Your task to perform on an android device: turn off priority inbox in the gmail app Image 0: 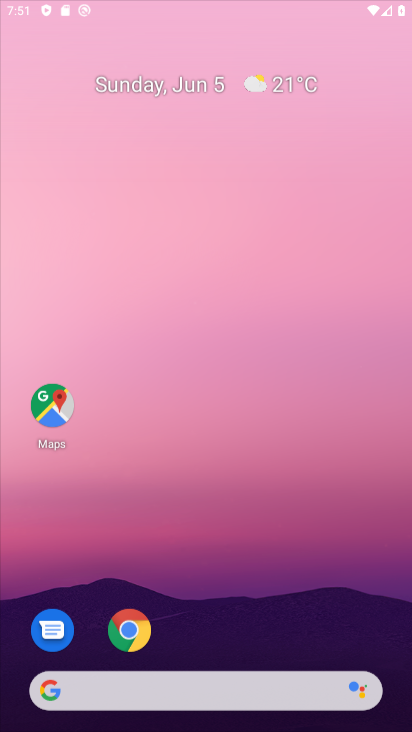
Step 0: click (258, 248)
Your task to perform on an android device: turn off priority inbox in the gmail app Image 1: 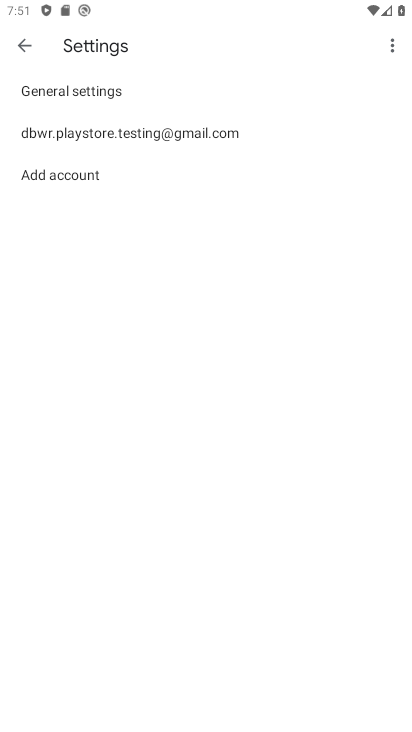
Step 1: press home button
Your task to perform on an android device: turn off priority inbox in the gmail app Image 2: 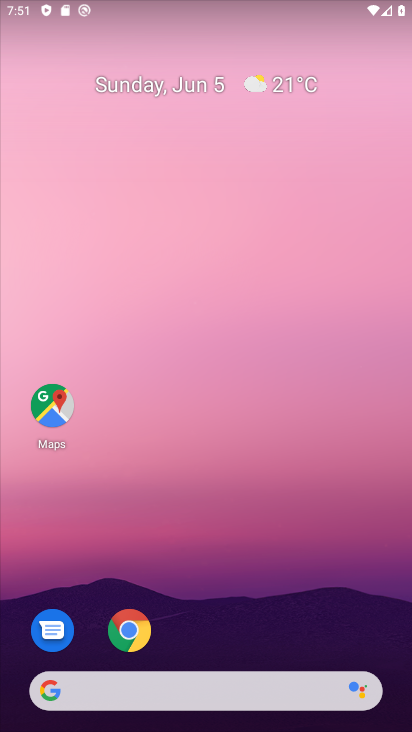
Step 2: drag from (93, 509) to (124, 302)
Your task to perform on an android device: turn off priority inbox in the gmail app Image 3: 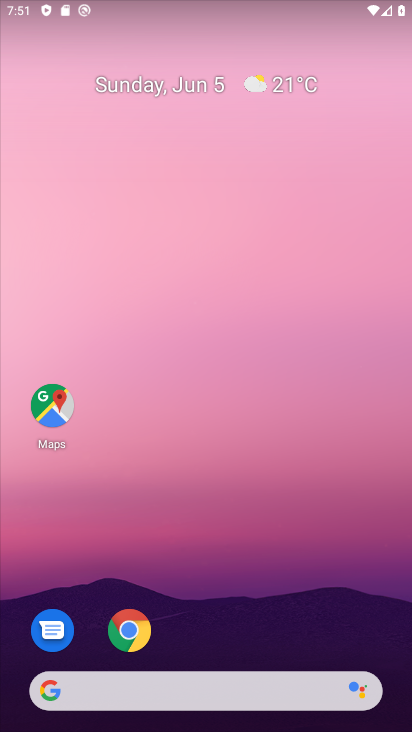
Step 3: drag from (237, 632) to (80, 6)
Your task to perform on an android device: turn off priority inbox in the gmail app Image 4: 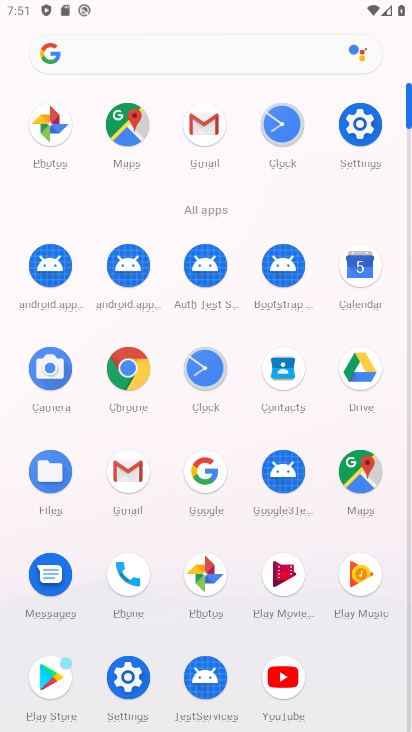
Step 4: click (125, 473)
Your task to perform on an android device: turn off priority inbox in the gmail app Image 5: 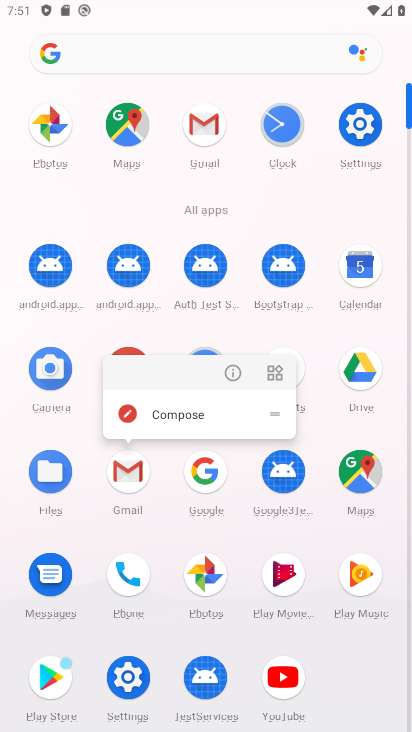
Step 5: click (225, 378)
Your task to perform on an android device: turn off priority inbox in the gmail app Image 6: 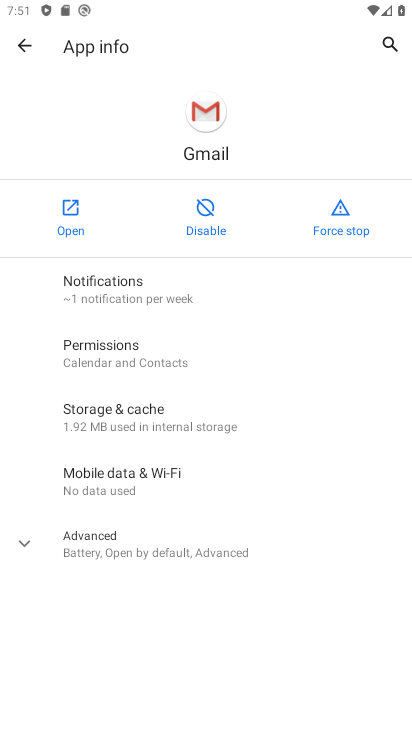
Step 6: click (77, 215)
Your task to perform on an android device: turn off priority inbox in the gmail app Image 7: 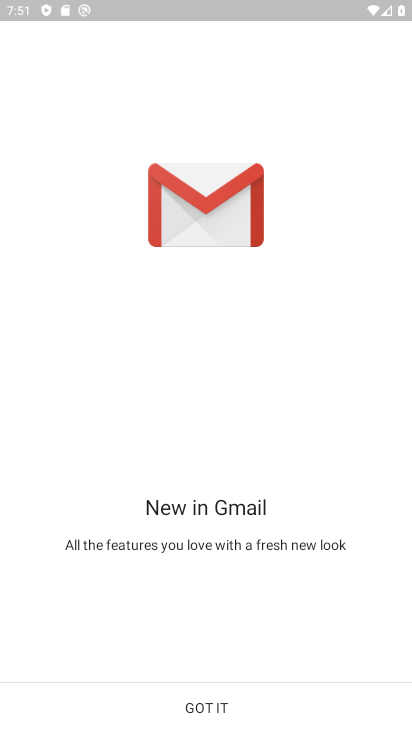
Step 7: click (206, 707)
Your task to perform on an android device: turn off priority inbox in the gmail app Image 8: 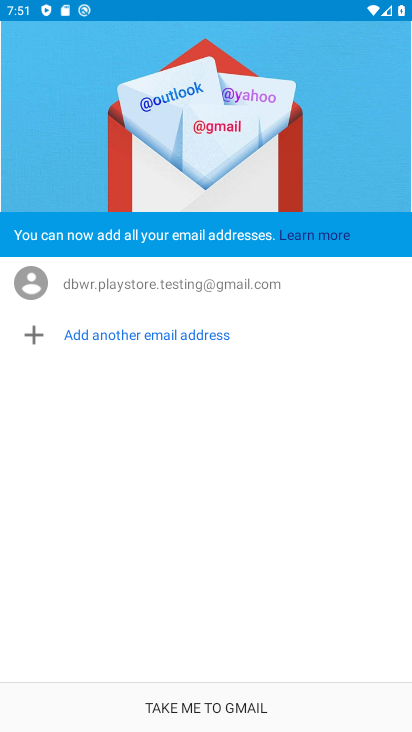
Step 8: click (212, 708)
Your task to perform on an android device: turn off priority inbox in the gmail app Image 9: 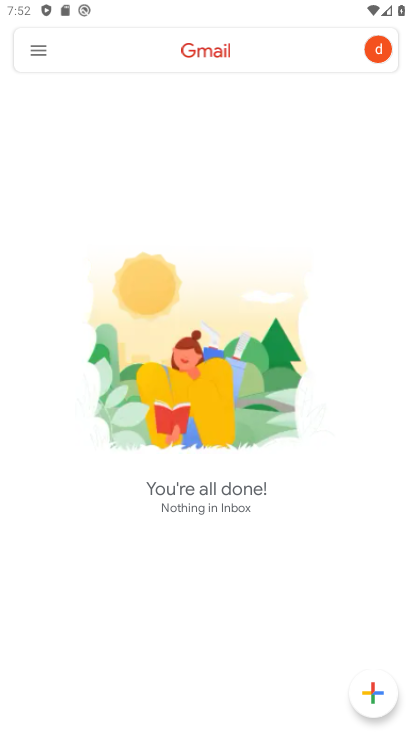
Step 9: click (51, 50)
Your task to perform on an android device: turn off priority inbox in the gmail app Image 10: 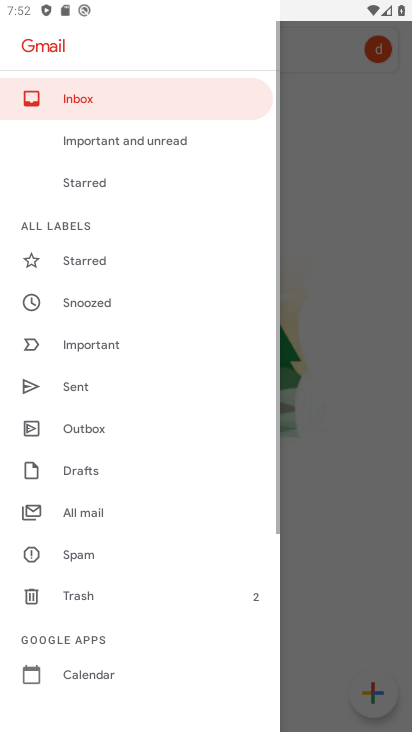
Step 10: drag from (118, 617) to (194, 305)
Your task to perform on an android device: turn off priority inbox in the gmail app Image 11: 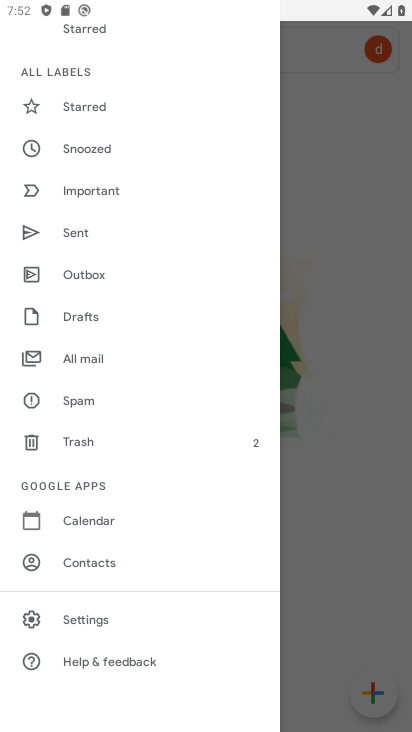
Step 11: click (114, 617)
Your task to perform on an android device: turn off priority inbox in the gmail app Image 12: 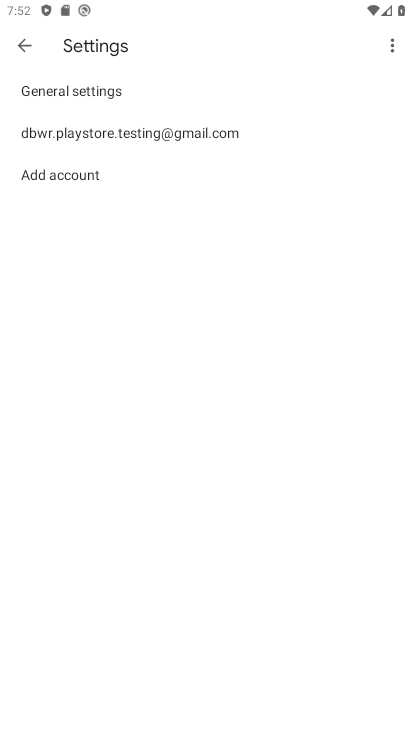
Step 12: click (19, 120)
Your task to perform on an android device: turn off priority inbox in the gmail app Image 13: 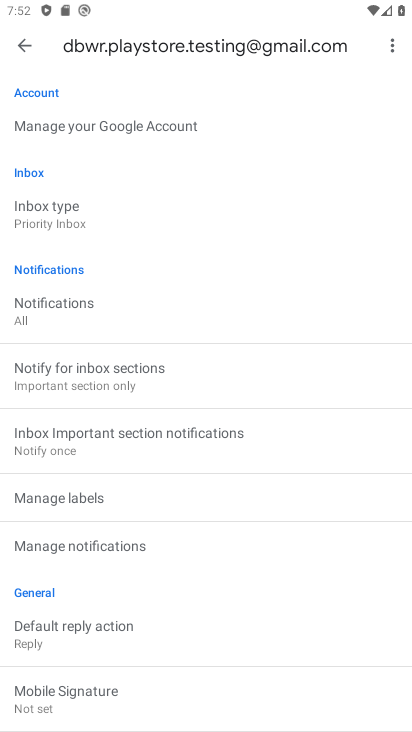
Step 13: click (68, 228)
Your task to perform on an android device: turn off priority inbox in the gmail app Image 14: 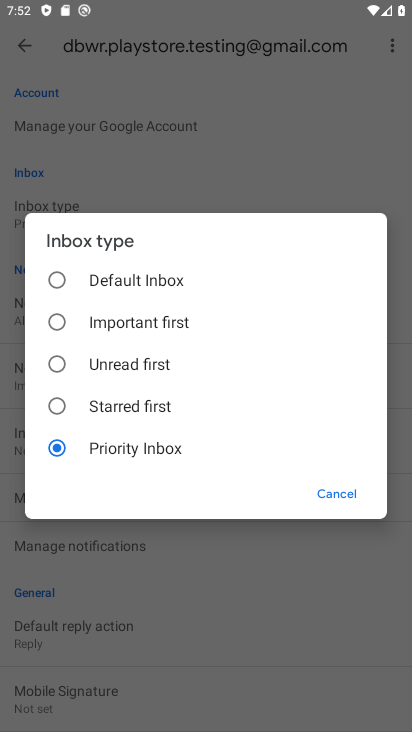
Step 14: click (65, 289)
Your task to perform on an android device: turn off priority inbox in the gmail app Image 15: 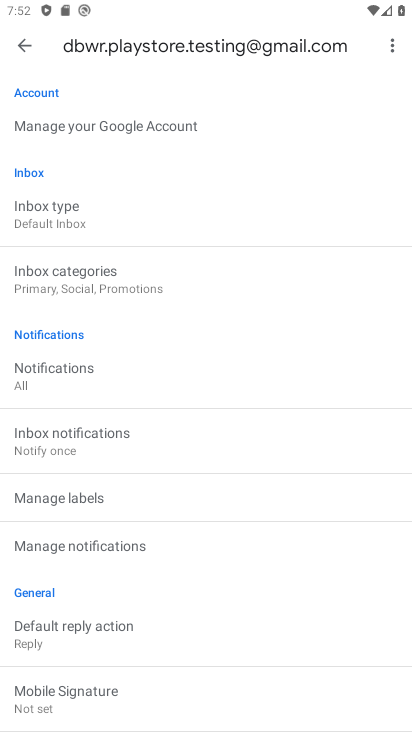
Step 15: task complete